Your task to perform on an android device: Go to eBay Image 0: 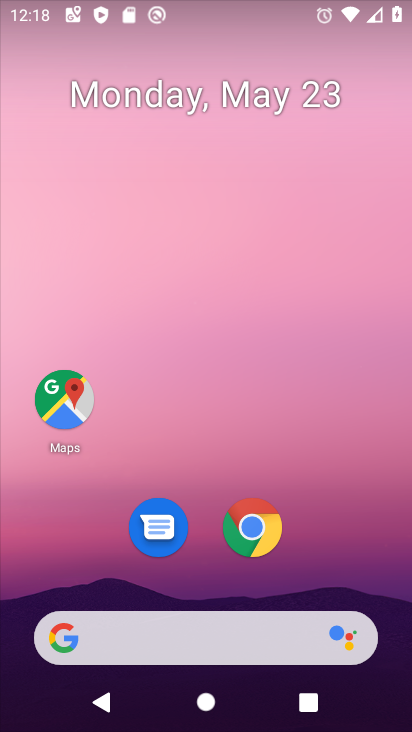
Step 0: click (369, 567)
Your task to perform on an android device: Go to eBay Image 1: 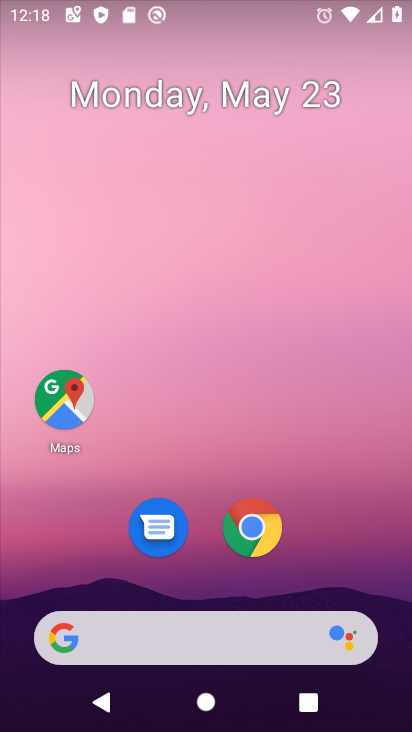
Step 1: click (247, 539)
Your task to perform on an android device: Go to eBay Image 2: 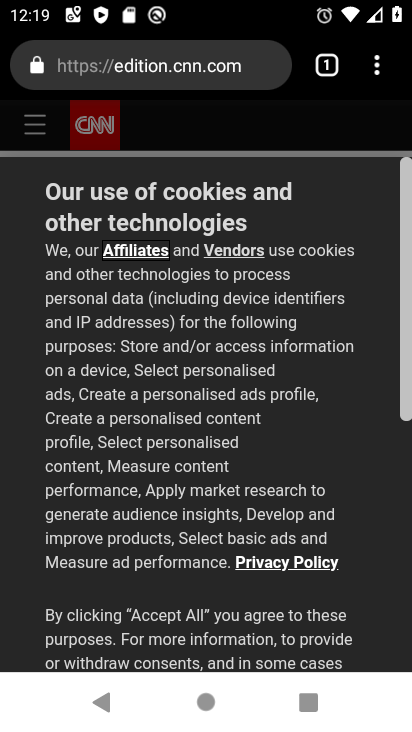
Step 2: click (157, 67)
Your task to perform on an android device: Go to eBay Image 3: 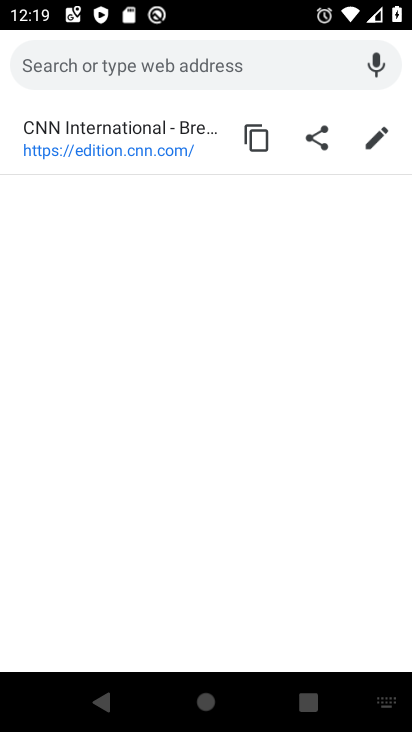
Step 3: type "ebay.com"
Your task to perform on an android device: Go to eBay Image 4: 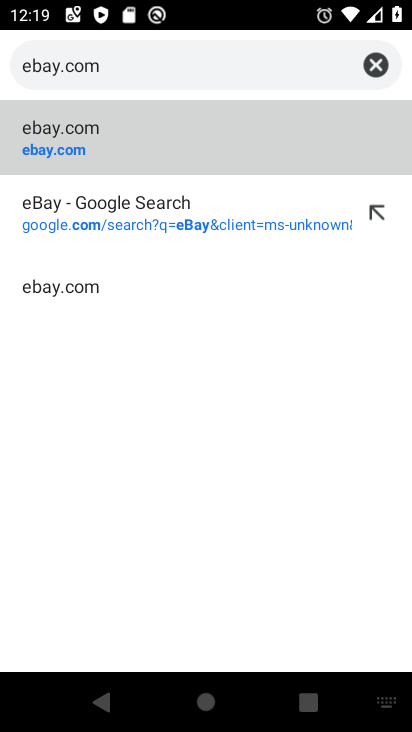
Step 4: click (136, 135)
Your task to perform on an android device: Go to eBay Image 5: 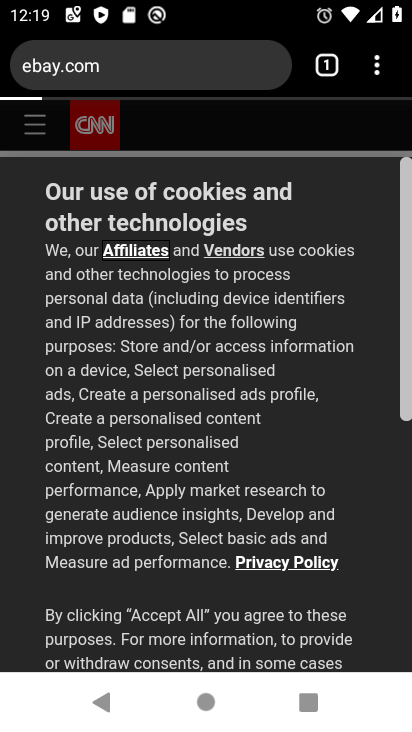
Step 5: task complete